Your task to perform on an android device: turn off airplane mode Image 0: 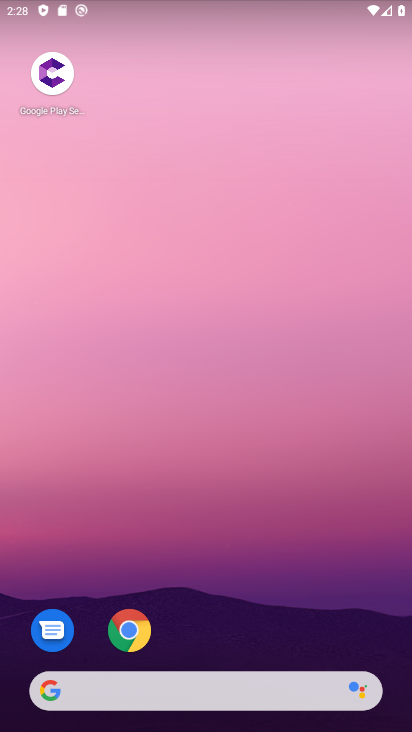
Step 0: drag from (234, 649) to (99, 84)
Your task to perform on an android device: turn off airplane mode Image 1: 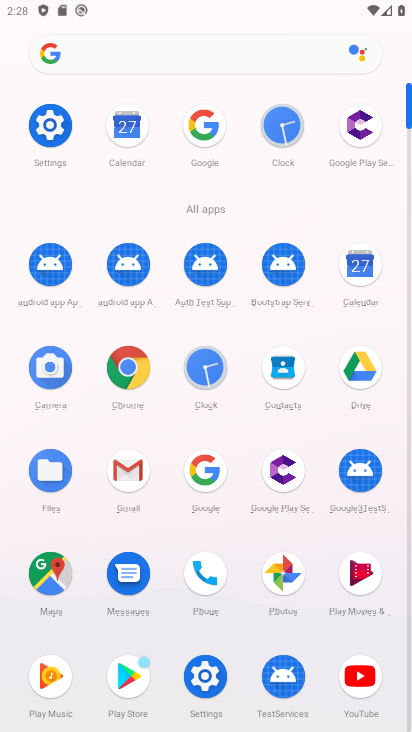
Step 1: click (36, 140)
Your task to perform on an android device: turn off airplane mode Image 2: 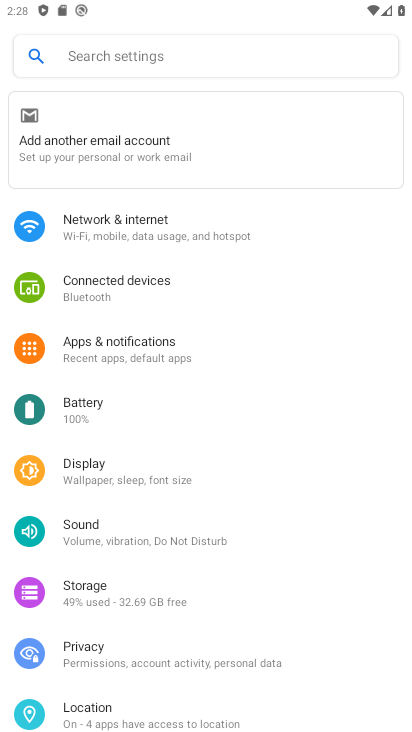
Step 2: click (101, 228)
Your task to perform on an android device: turn off airplane mode Image 3: 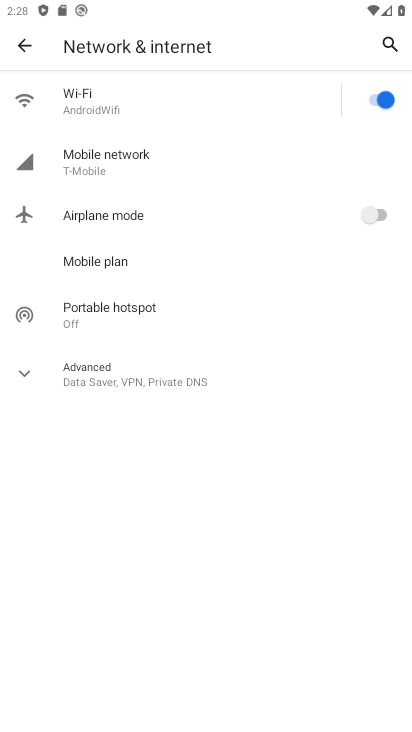
Step 3: click (81, 169)
Your task to perform on an android device: turn off airplane mode Image 4: 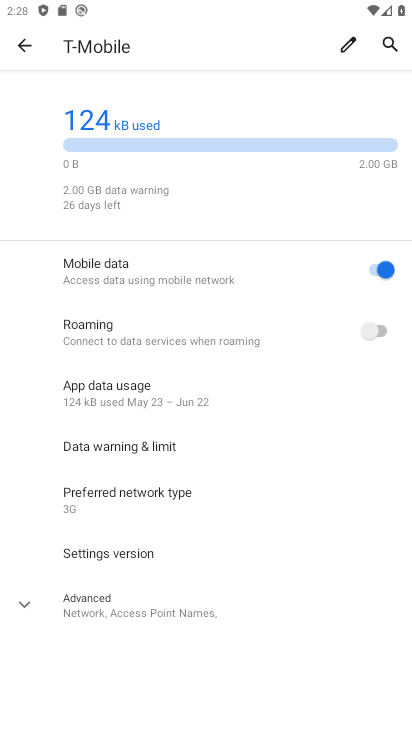
Step 4: click (19, 48)
Your task to perform on an android device: turn off airplane mode Image 5: 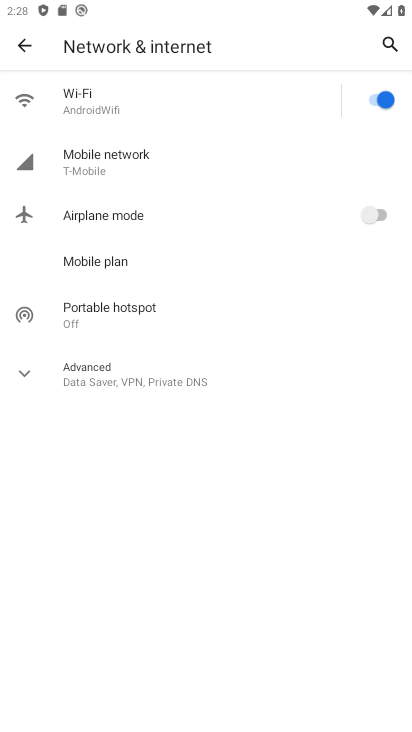
Step 5: task complete